Your task to perform on an android device: uninstall "Google Chat" Image 0: 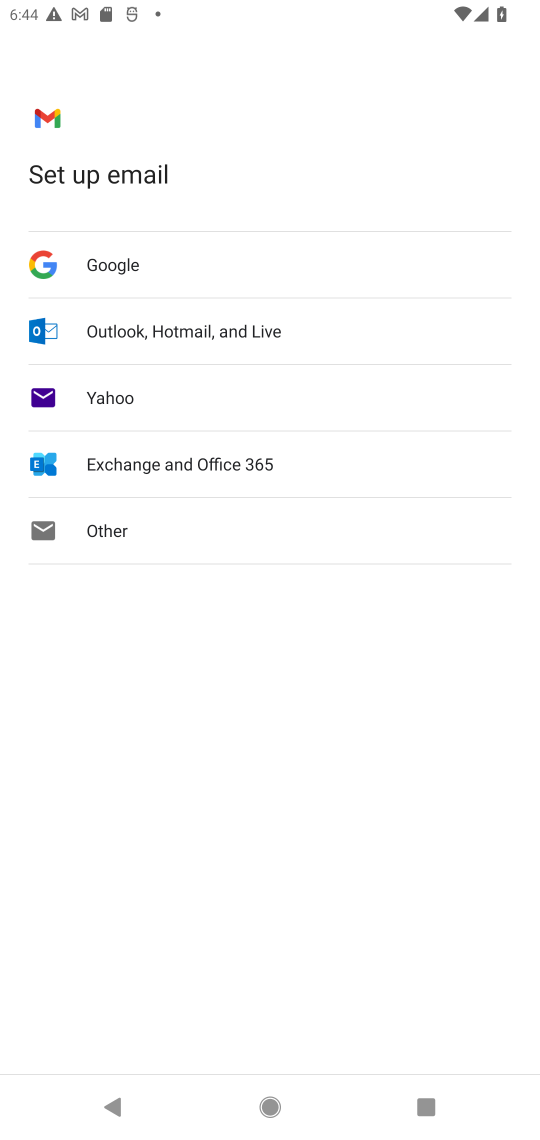
Step 0: press home button
Your task to perform on an android device: uninstall "Google Chat" Image 1: 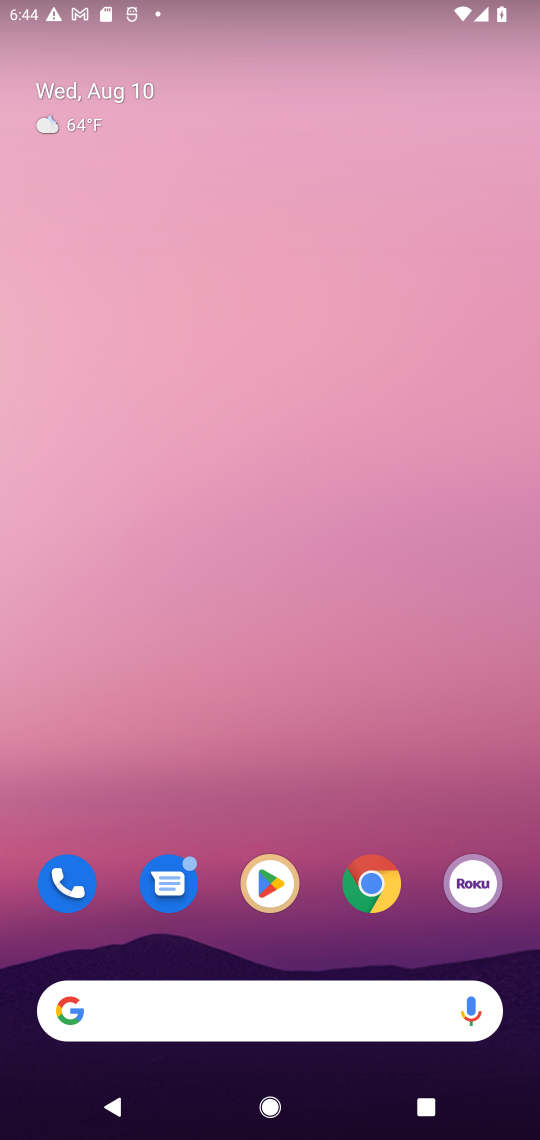
Step 1: click (268, 890)
Your task to perform on an android device: uninstall "Google Chat" Image 2: 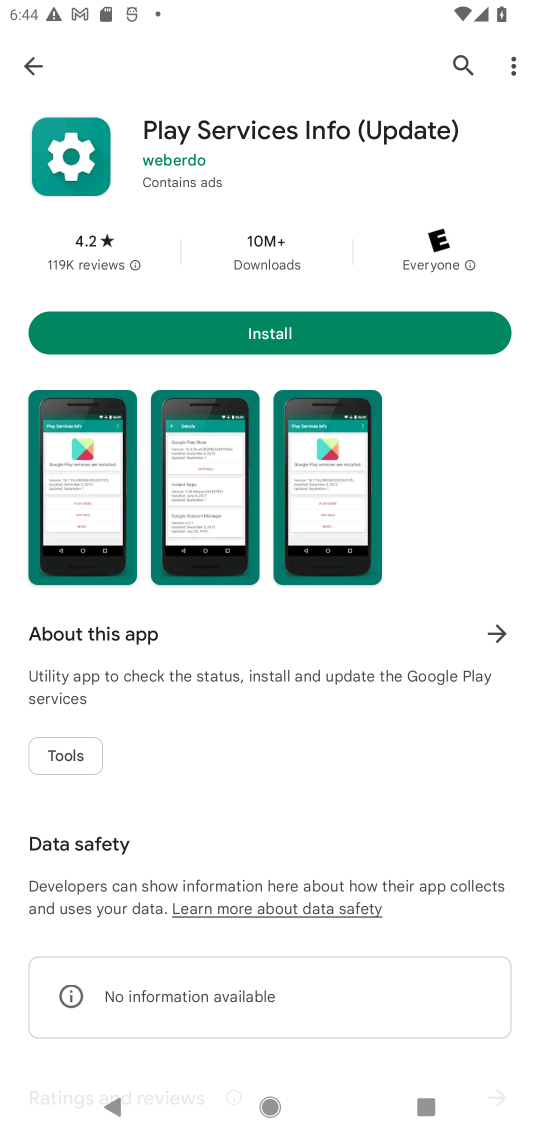
Step 2: click (453, 64)
Your task to perform on an android device: uninstall "Google Chat" Image 3: 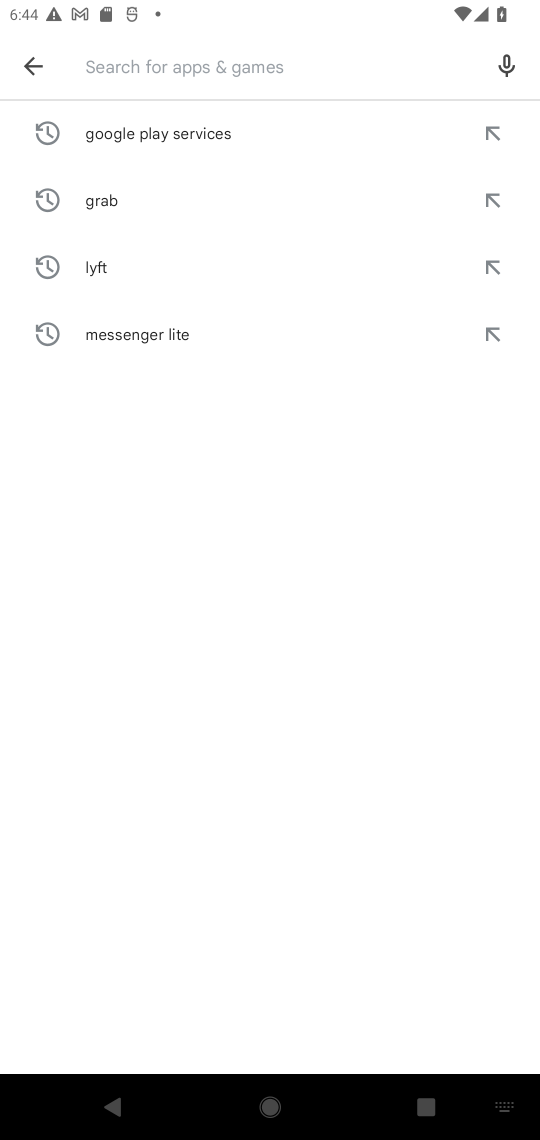
Step 3: type "Google Chat"
Your task to perform on an android device: uninstall "Google Chat" Image 4: 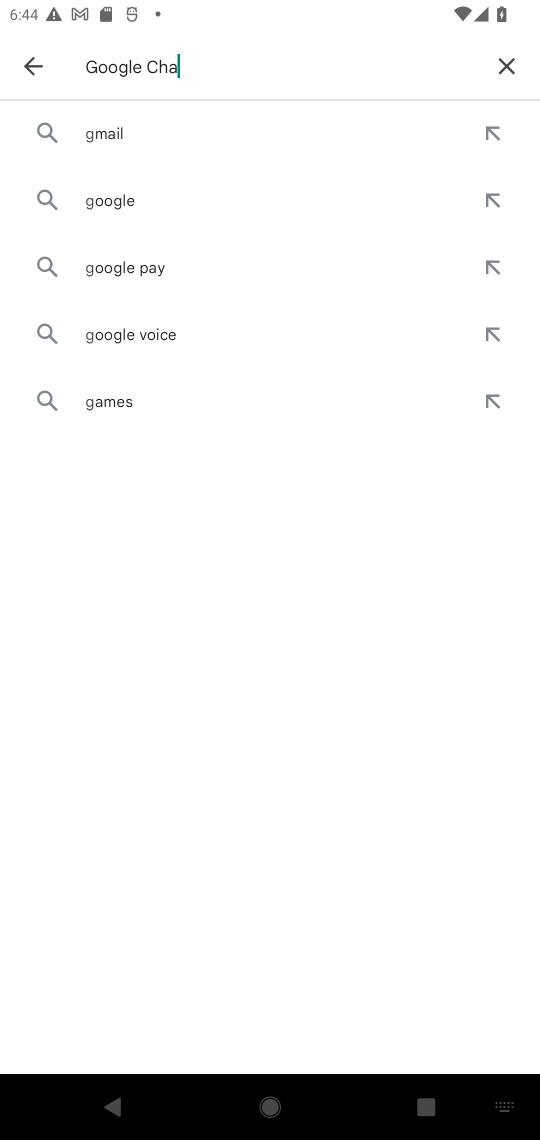
Step 4: type ""
Your task to perform on an android device: uninstall "Google Chat" Image 5: 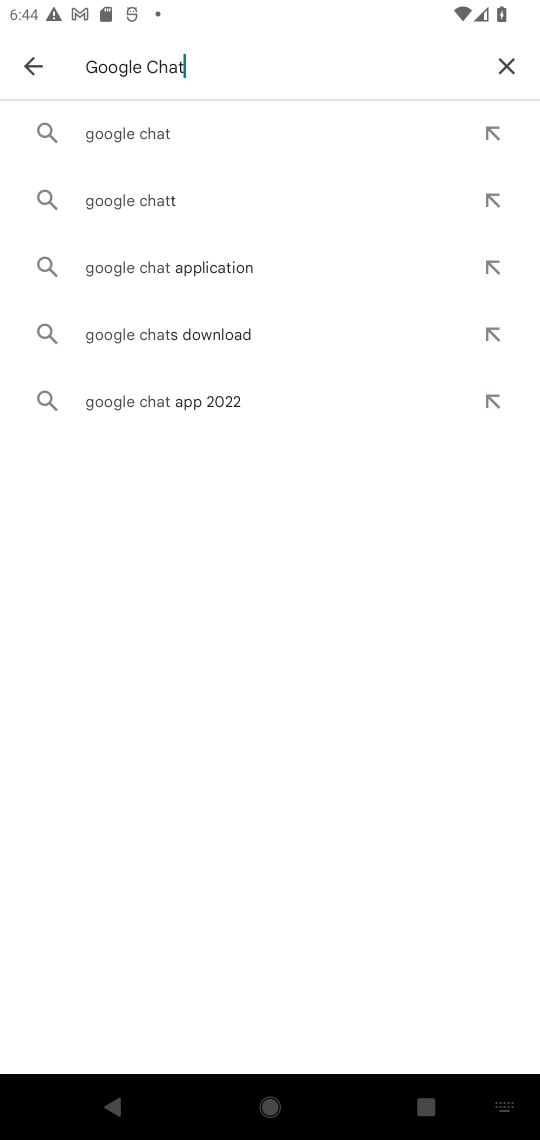
Step 5: click (183, 131)
Your task to perform on an android device: uninstall "Google Chat" Image 6: 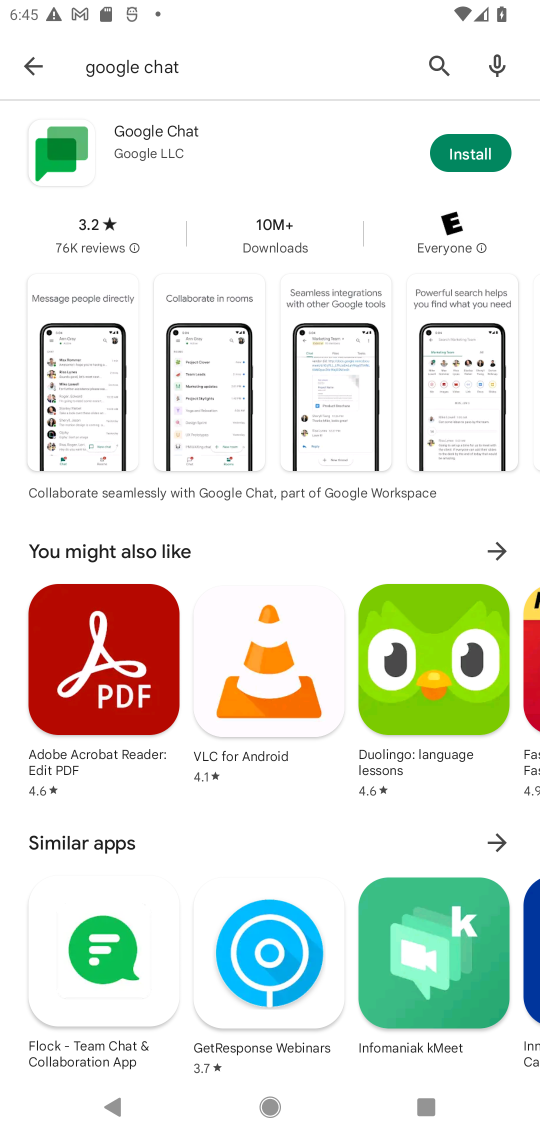
Step 6: task complete